Your task to perform on an android device: Open Youtube and go to the subscriptions tab Image 0: 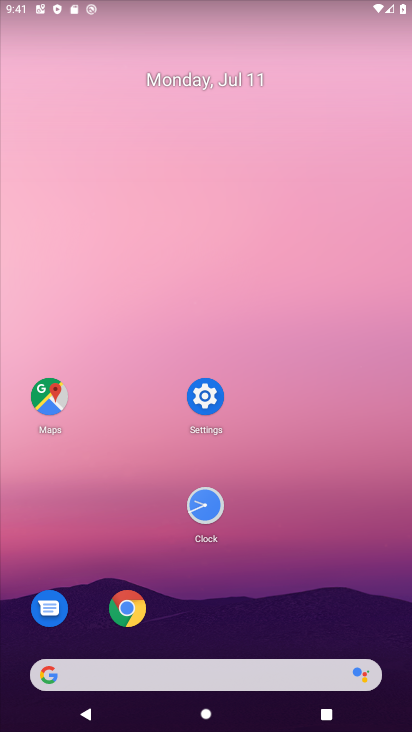
Step 0: drag from (399, 695) to (320, 129)
Your task to perform on an android device: Open Youtube and go to the subscriptions tab Image 1: 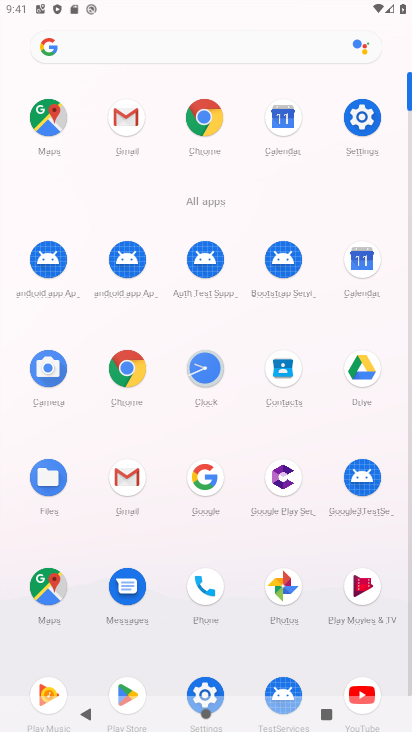
Step 1: click (352, 691)
Your task to perform on an android device: Open Youtube and go to the subscriptions tab Image 2: 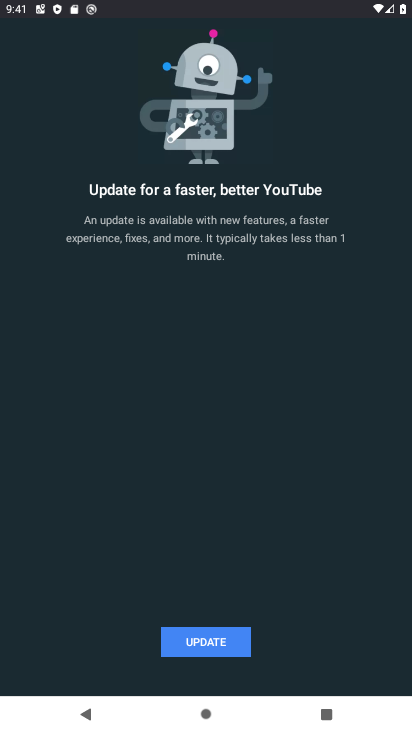
Step 2: click (210, 646)
Your task to perform on an android device: Open Youtube and go to the subscriptions tab Image 3: 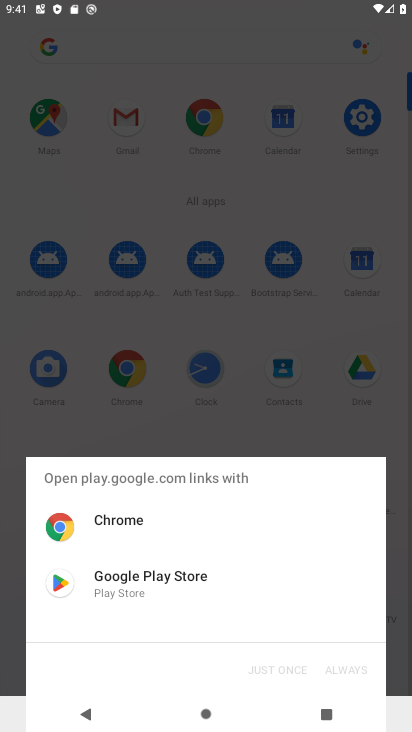
Step 3: click (101, 520)
Your task to perform on an android device: Open Youtube and go to the subscriptions tab Image 4: 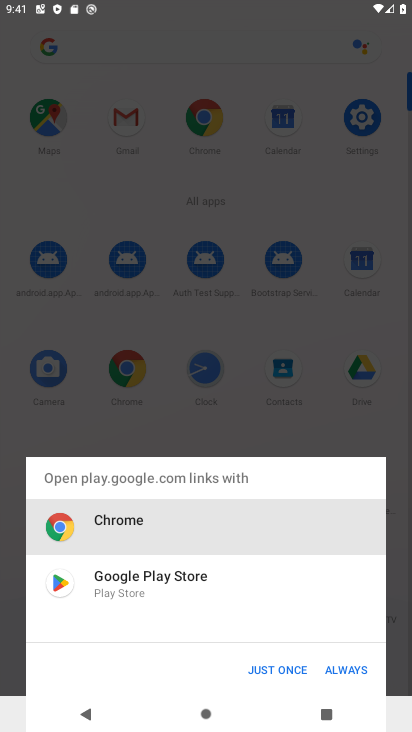
Step 4: click (96, 577)
Your task to perform on an android device: Open Youtube and go to the subscriptions tab Image 5: 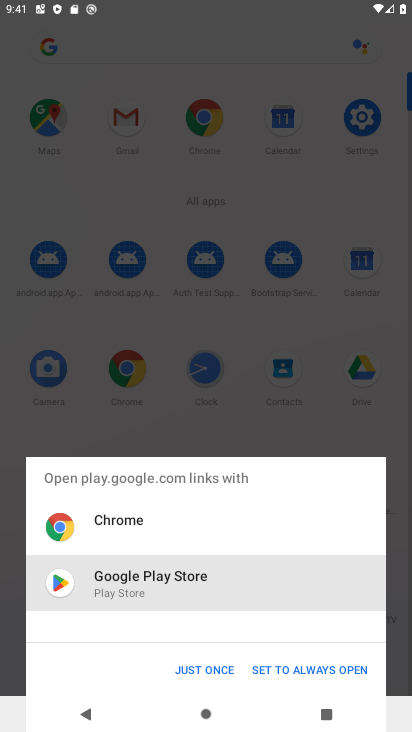
Step 5: click (217, 669)
Your task to perform on an android device: Open Youtube and go to the subscriptions tab Image 6: 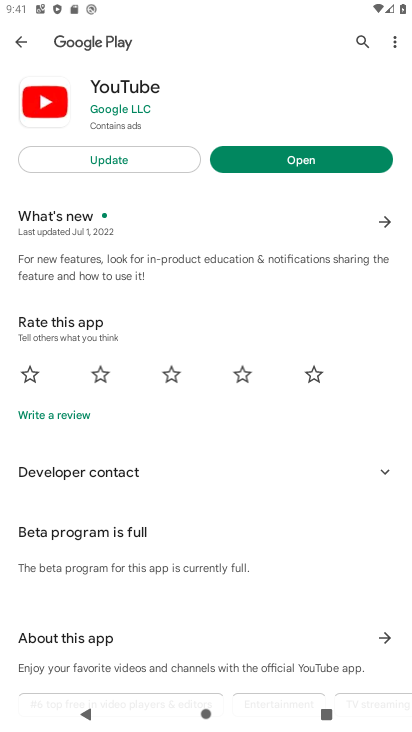
Step 6: click (148, 155)
Your task to perform on an android device: Open Youtube and go to the subscriptions tab Image 7: 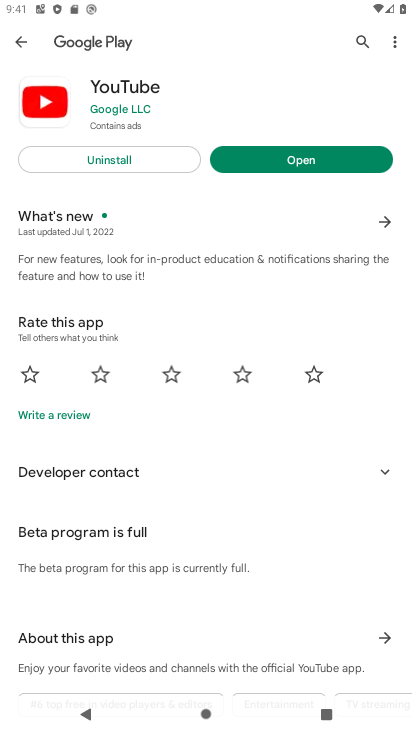
Step 7: click (266, 157)
Your task to perform on an android device: Open Youtube and go to the subscriptions tab Image 8: 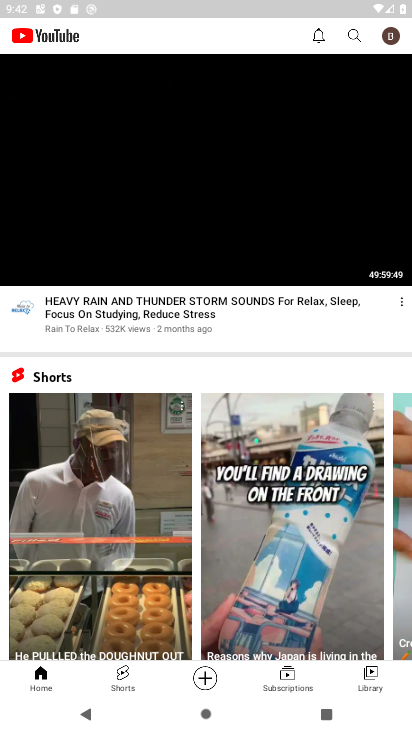
Step 8: click (290, 678)
Your task to perform on an android device: Open Youtube and go to the subscriptions tab Image 9: 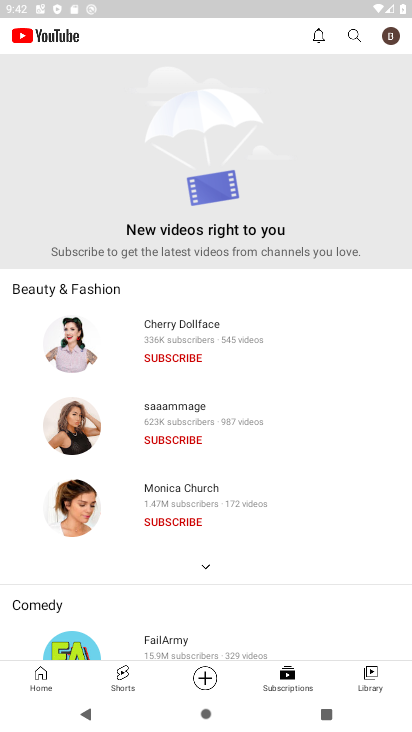
Step 9: task complete